Your task to perform on an android device: delete browsing data in the chrome app Image 0: 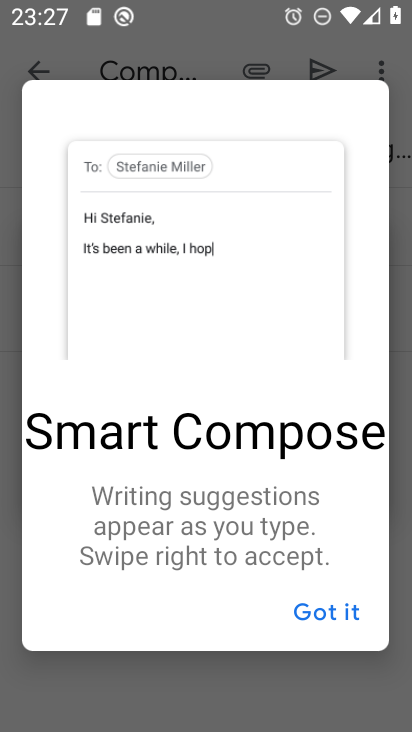
Step 0: press home button
Your task to perform on an android device: delete browsing data in the chrome app Image 1: 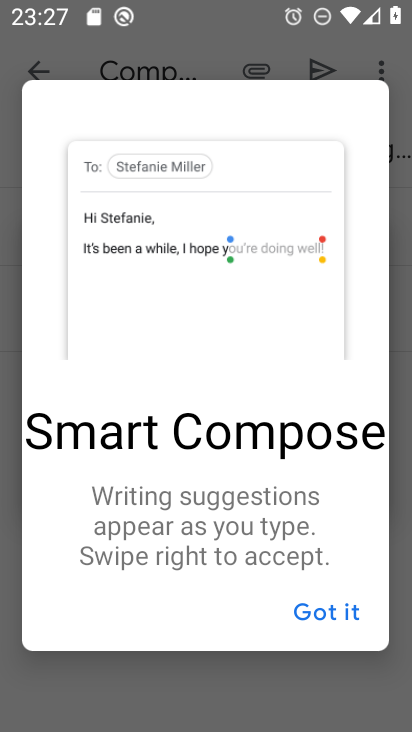
Step 1: press home button
Your task to perform on an android device: delete browsing data in the chrome app Image 2: 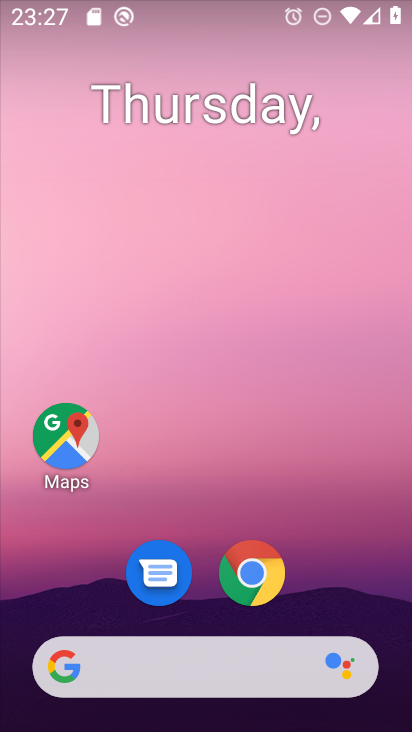
Step 2: click (254, 582)
Your task to perform on an android device: delete browsing data in the chrome app Image 3: 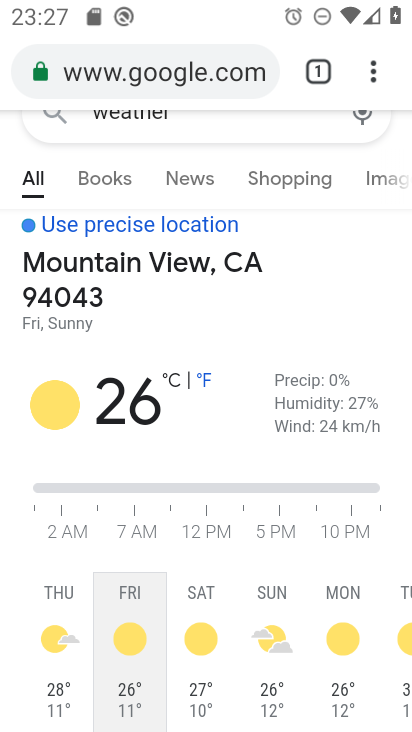
Step 3: click (378, 70)
Your task to perform on an android device: delete browsing data in the chrome app Image 4: 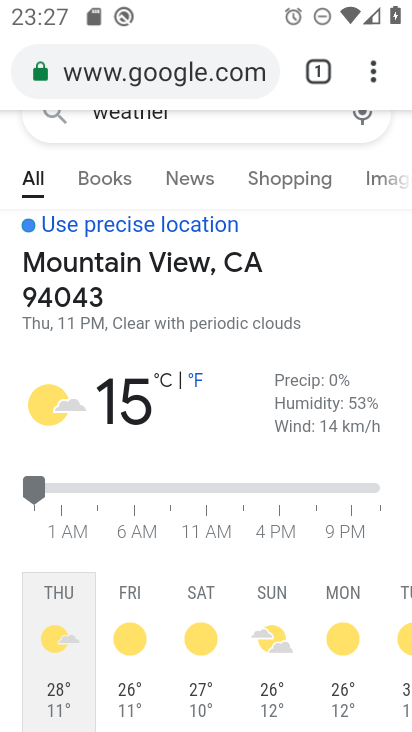
Step 4: drag from (384, 78) to (122, 397)
Your task to perform on an android device: delete browsing data in the chrome app Image 5: 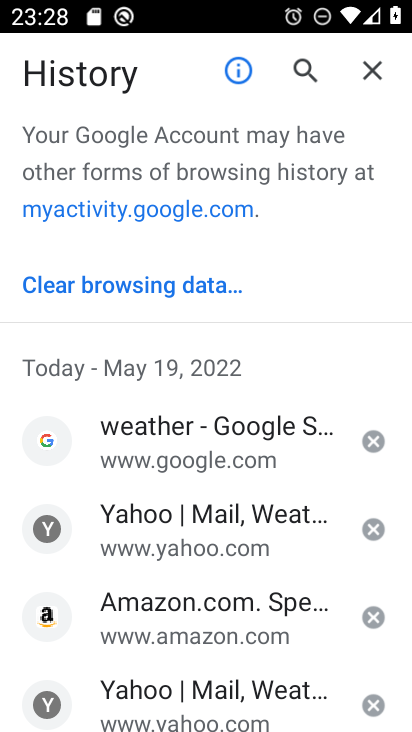
Step 5: click (151, 285)
Your task to perform on an android device: delete browsing data in the chrome app Image 6: 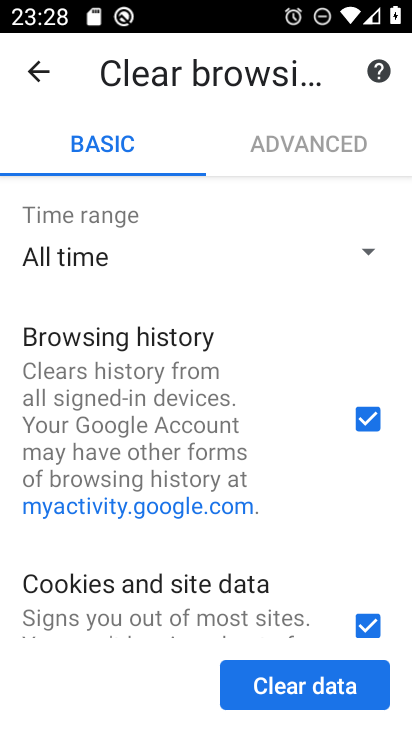
Step 6: drag from (299, 488) to (322, 159)
Your task to perform on an android device: delete browsing data in the chrome app Image 7: 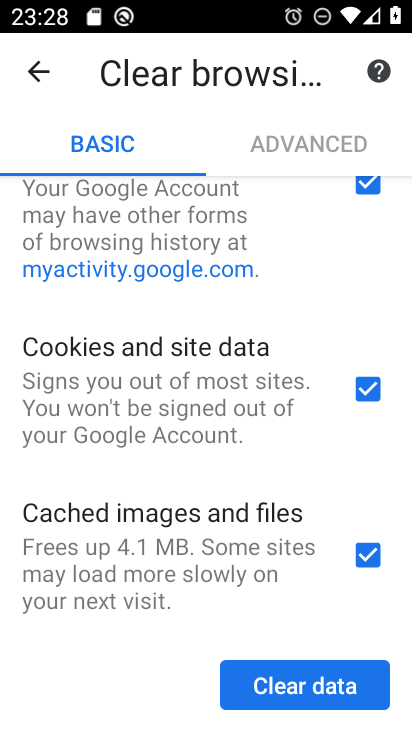
Step 7: drag from (295, 275) to (244, 583)
Your task to perform on an android device: delete browsing data in the chrome app Image 8: 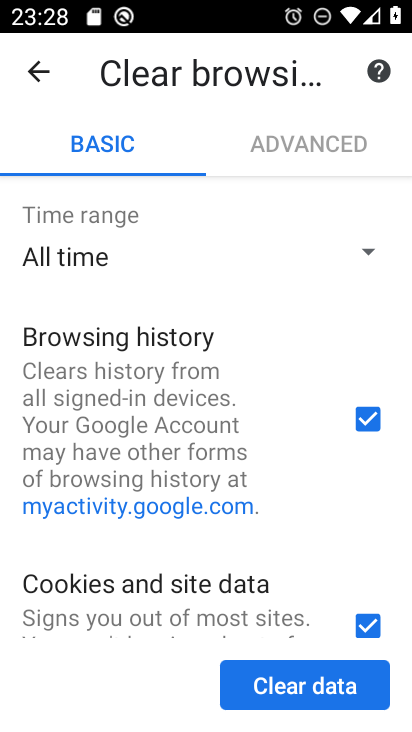
Step 8: click (293, 671)
Your task to perform on an android device: delete browsing data in the chrome app Image 9: 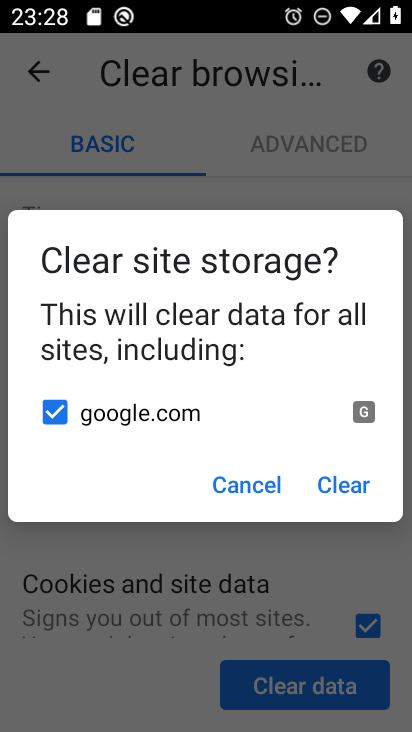
Step 9: click (362, 486)
Your task to perform on an android device: delete browsing data in the chrome app Image 10: 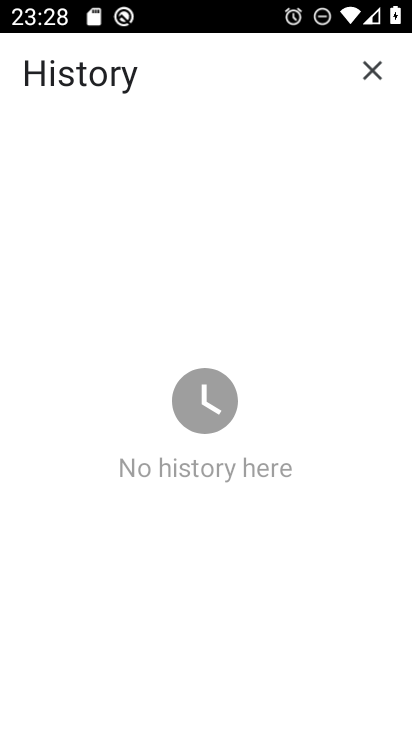
Step 10: task complete